Your task to perform on an android device: Go to location settings Image 0: 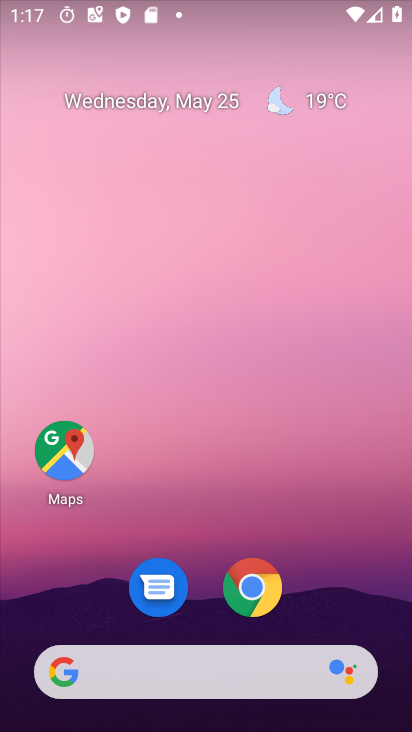
Step 0: drag from (194, 729) to (188, 150)
Your task to perform on an android device: Go to location settings Image 1: 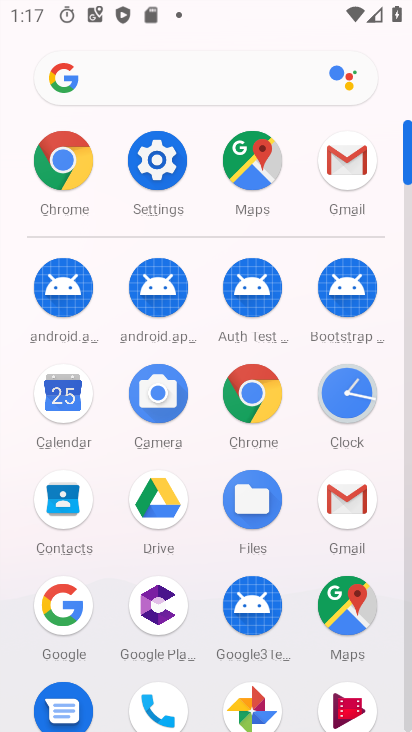
Step 1: click (155, 174)
Your task to perform on an android device: Go to location settings Image 2: 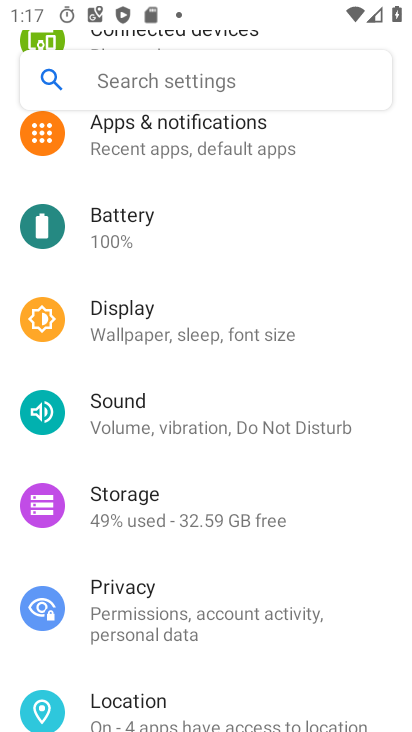
Step 2: click (129, 694)
Your task to perform on an android device: Go to location settings Image 3: 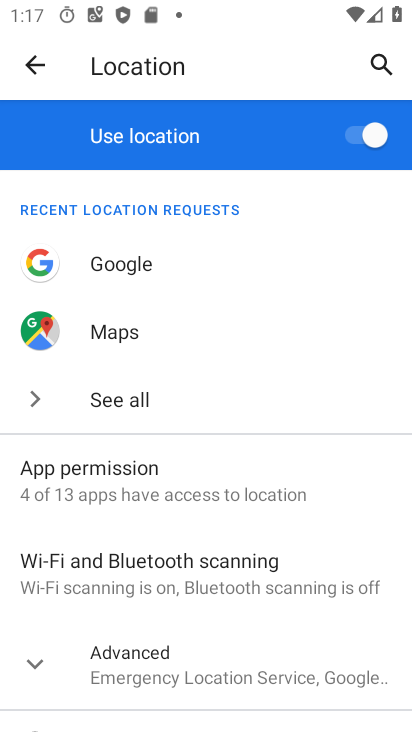
Step 3: task complete